Your task to perform on an android device: Go to accessibility settings Image 0: 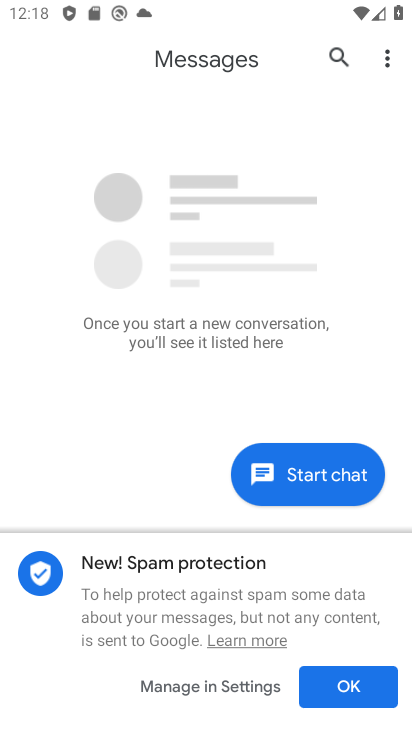
Step 0: press home button
Your task to perform on an android device: Go to accessibility settings Image 1: 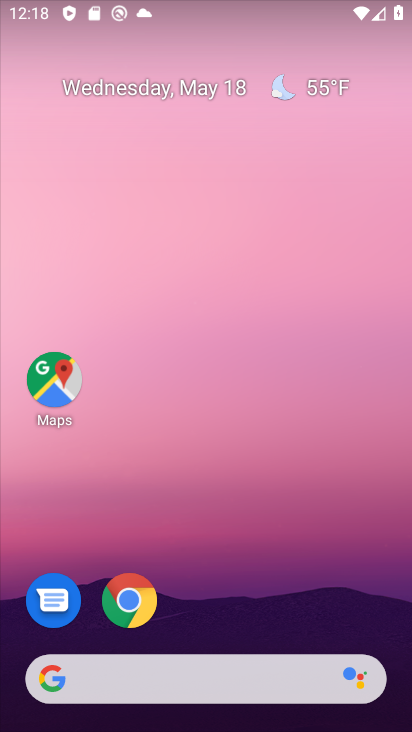
Step 1: drag from (210, 695) to (187, 34)
Your task to perform on an android device: Go to accessibility settings Image 2: 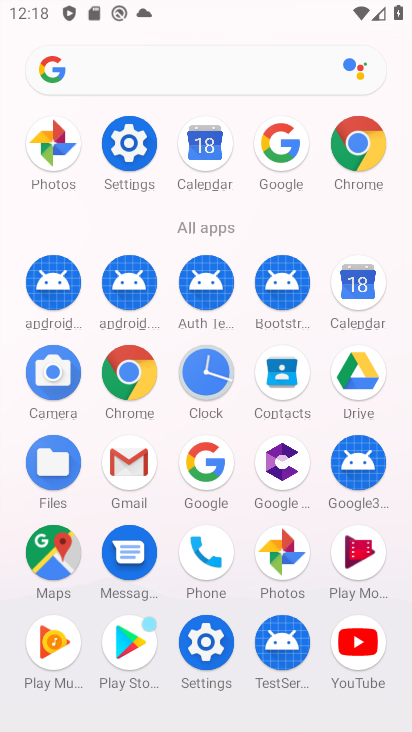
Step 2: click (128, 146)
Your task to perform on an android device: Go to accessibility settings Image 3: 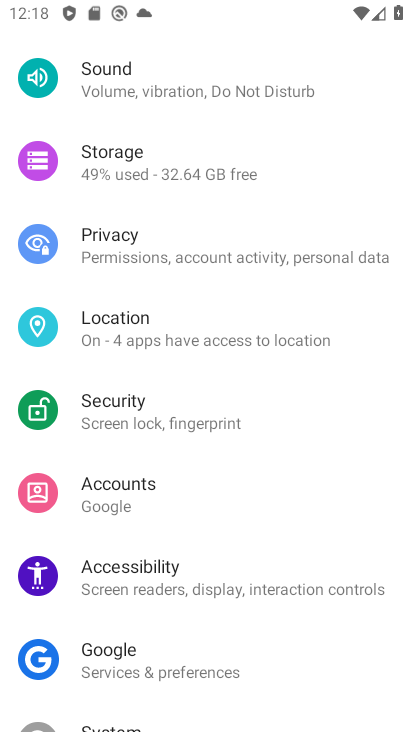
Step 3: click (187, 596)
Your task to perform on an android device: Go to accessibility settings Image 4: 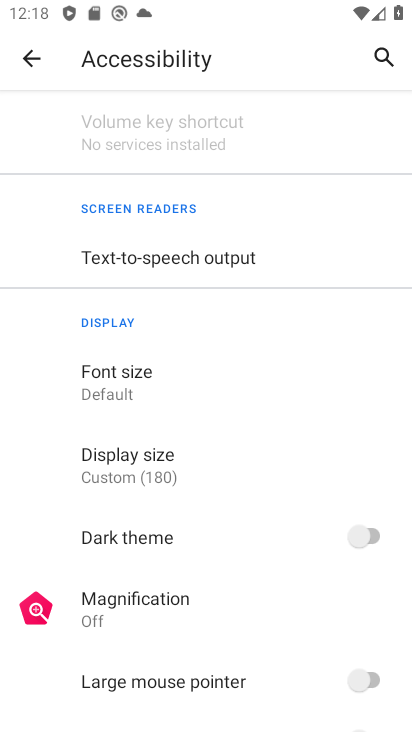
Step 4: task complete